Your task to perform on an android device: open a bookmark in the chrome app Image 0: 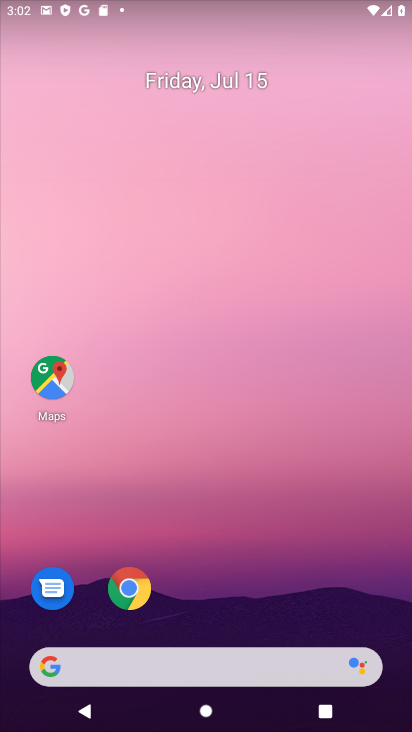
Step 0: drag from (258, 634) to (174, 0)
Your task to perform on an android device: open a bookmark in the chrome app Image 1: 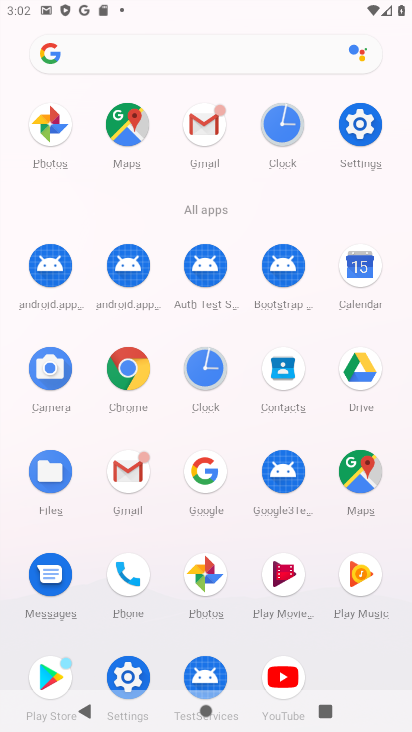
Step 1: click (124, 373)
Your task to perform on an android device: open a bookmark in the chrome app Image 2: 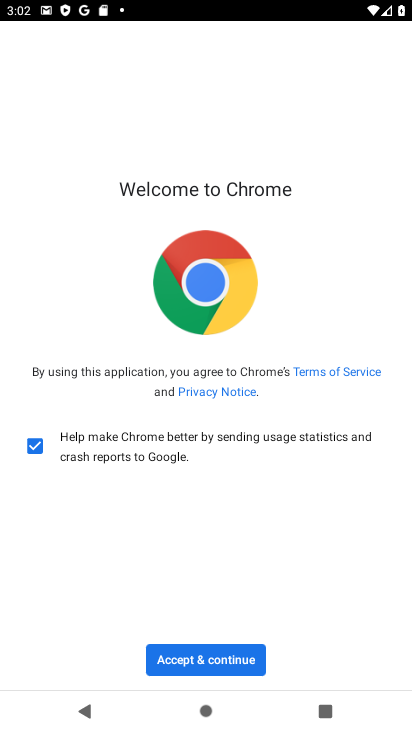
Step 2: click (234, 650)
Your task to perform on an android device: open a bookmark in the chrome app Image 3: 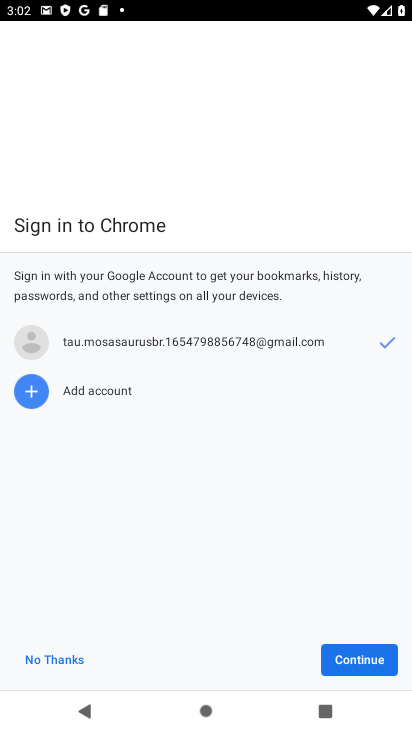
Step 3: click (385, 655)
Your task to perform on an android device: open a bookmark in the chrome app Image 4: 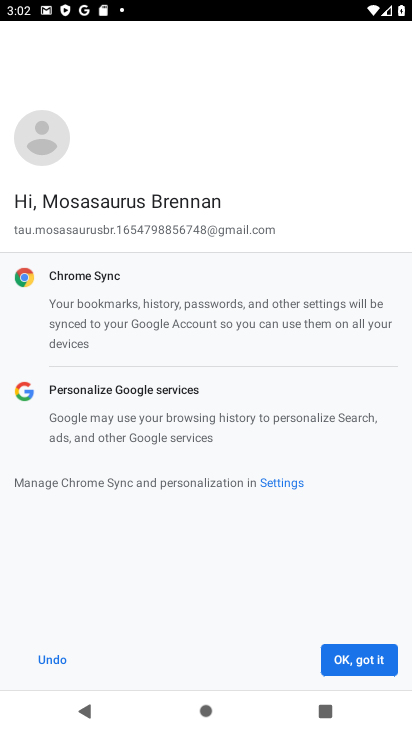
Step 4: click (385, 655)
Your task to perform on an android device: open a bookmark in the chrome app Image 5: 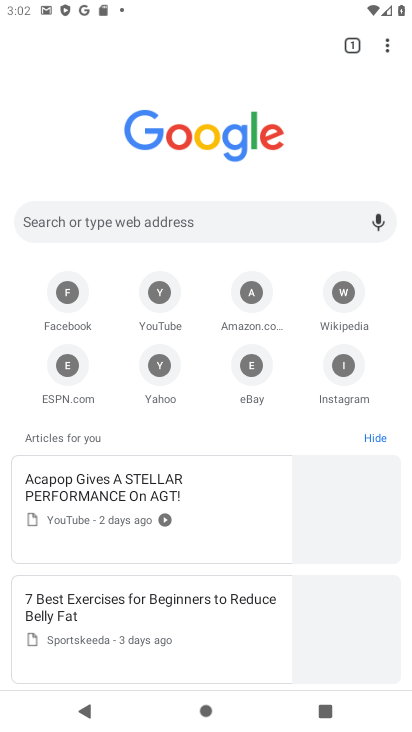
Step 5: click (382, 46)
Your task to perform on an android device: open a bookmark in the chrome app Image 6: 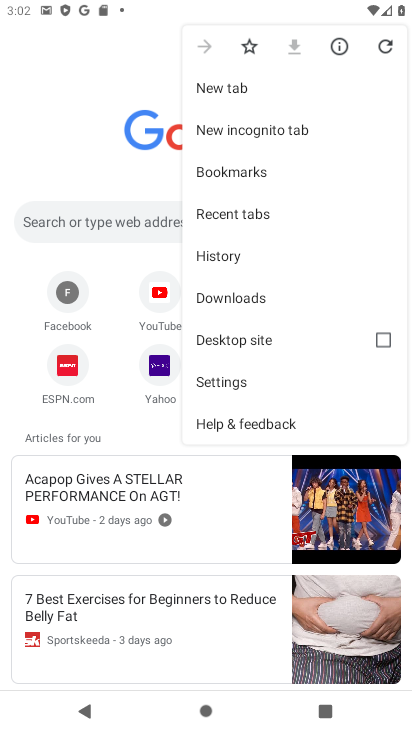
Step 6: click (251, 180)
Your task to perform on an android device: open a bookmark in the chrome app Image 7: 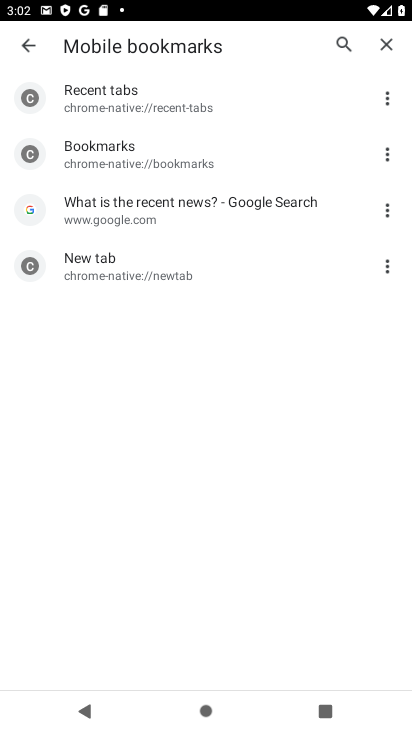
Step 7: click (167, 222)
Your task to perform on an android device: open a bookmark in the chrome app Image 8: 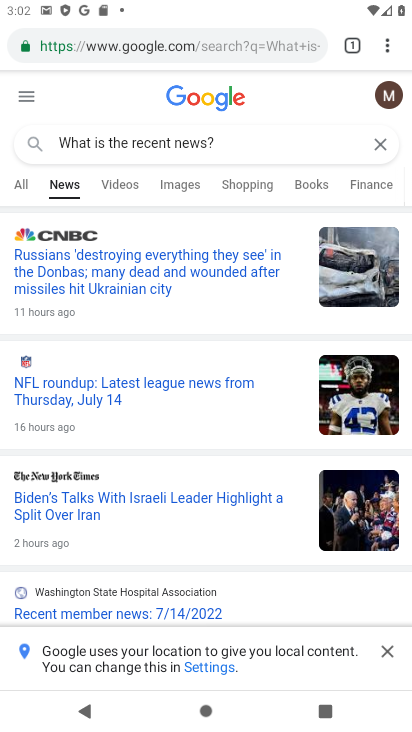
Step 8: task complete